Your task to perform on an android device: Search for seafood restaurants on Google Maps Image 0: 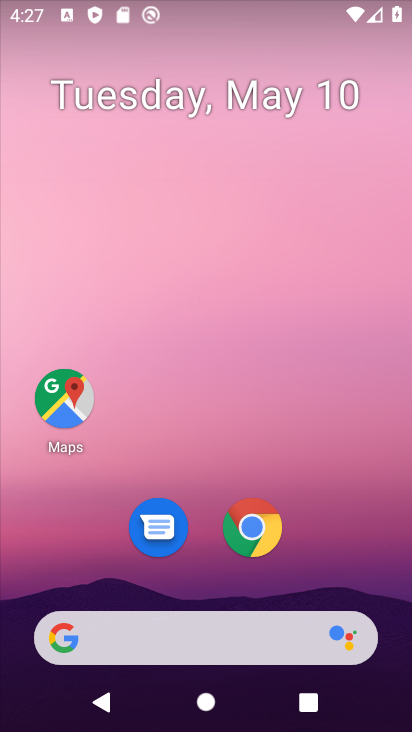
Step 0: click (62, 392)
Your task to perform on an android device: Search for seafood restaurants on Google Maps Image 1: 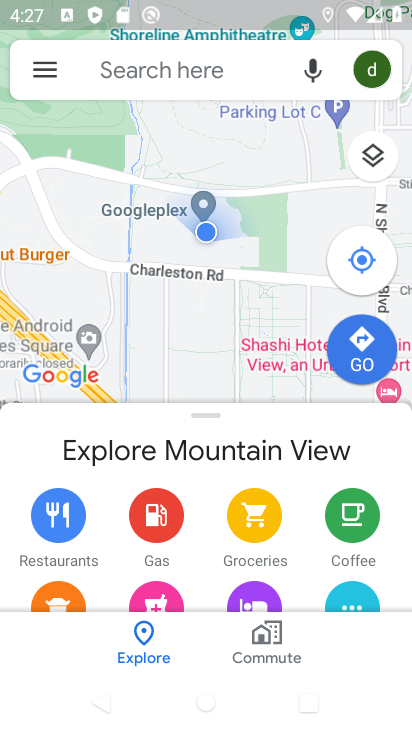
Step 1: click (130, 69)
Your task to perform on an android device: Search for seafood restaurants on Google Maps Image 2: 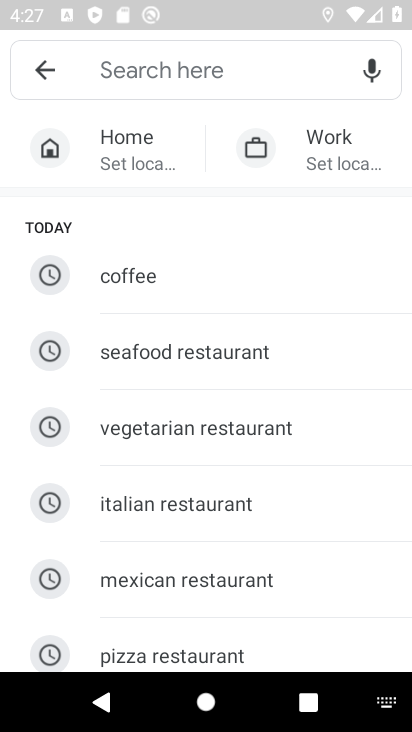
Step 2: click (183, 347)
Your task to perform on an android device: Search for seafood restaurants on Google Maps Image 3: 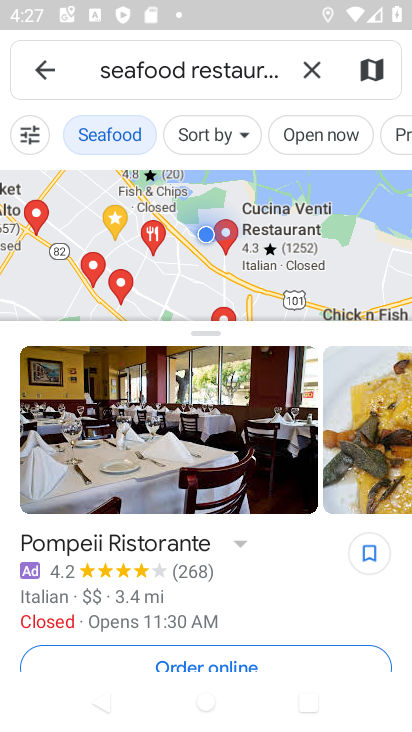
Step 3: task complete